Your task to perform on an android device: Search for "macbook pro 15 inch" on amazon.com, select the first entry, add it to the cart, then select checkout. Image 0: 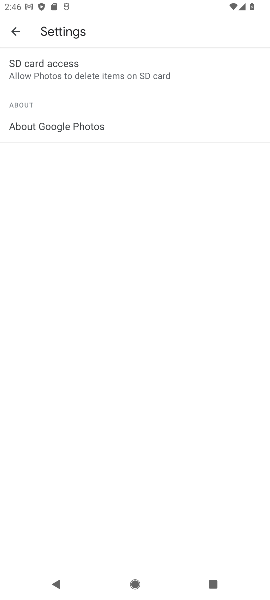
Step 0: press home button
Your task to perform on an android device: Search for "macbook pro 15 inch" on amazon.com, select the first entry, add it to the cart, then select checkout. Image 1: 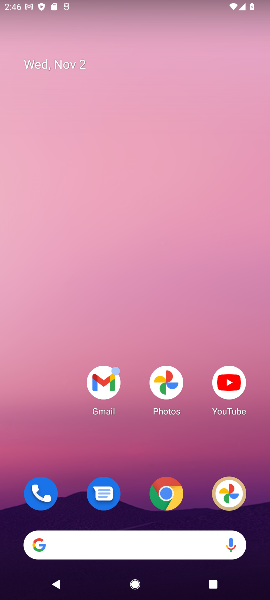
Step 1: click (165, 496)
Your task to perform on an android device: Search for "macbook pro 15 inch" on amazon.com, select the first entry, add it to the cart, then select checkout. Image 2: 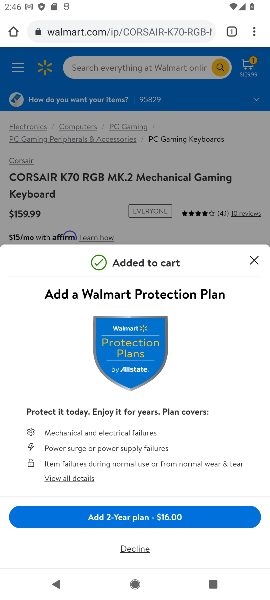
Step 2: click (84, 30)
Your task to perform on an android device: Search for "macbook pro 15 inch" on amazon.com, select the first entry, add it to the cart, then select checkout. Image 3: 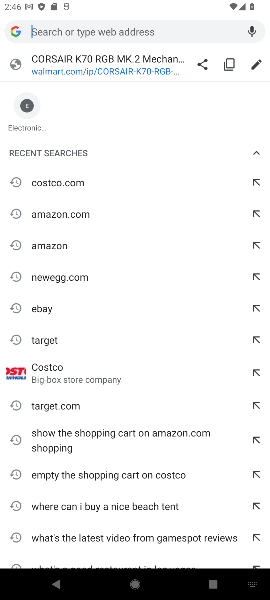
Step 3: type "amazon.com"
Your task to perform on an android device: Search for "macbook pro 15 inch" on amazon.com, select the first entry, add it to the cart, then select checkout. Image 4: 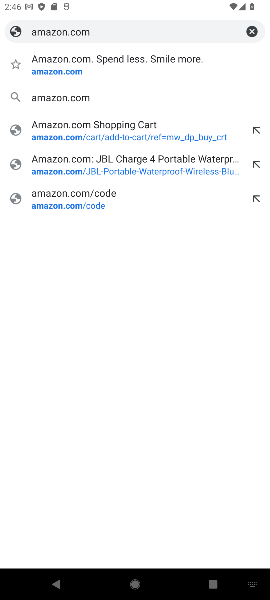
Step 4: click (49, 93)
Your task to perform on an android device: Search for "macbook pro 15 inch" on amazon.com, select the first entry, add it to the cart, then select checkout. Image 5: 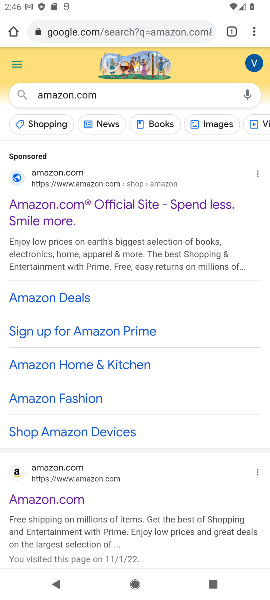
Step 5: click (43, 464)
Your task to perform on an android device: Search for "macbook pro 15 inch" on amazon.com, select the first entry, add it to the cart, then select checkout. Image 6: 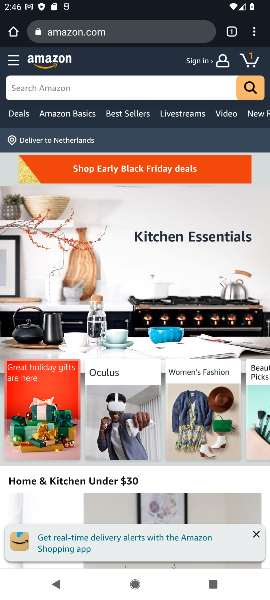
Step 6: click (69, 88)
Your task to perform on an android device: Search for "macbook pro 15 inch" on amazon.com, select the first entry, add it to the cart, then select checkout. Image 7: 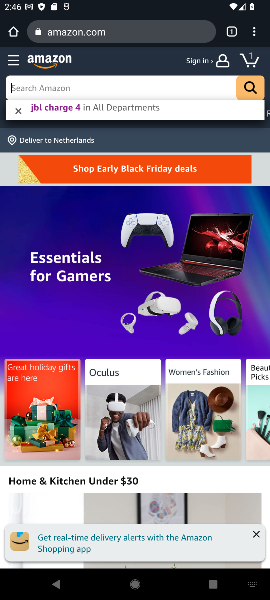
Step 7: type "macbook pro 15 inch"
Your task to perform on an android device: Search for "macbook pro 15 inch" on amazon.com, select the first entry, add it to the cart, then select checkout. Image 8: 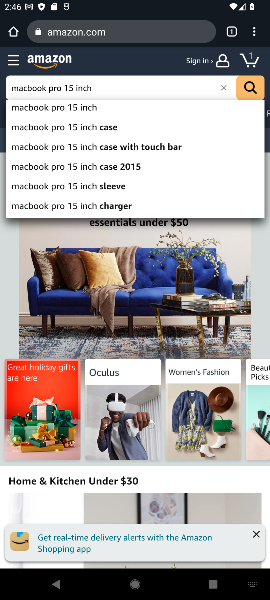
Step 8: click (105, 101)
Your task to perform on an android device: Search for "macbook pro 15 inch" on amazon.com, select the first entry, add it to the cart, then select checkout. Image 9: 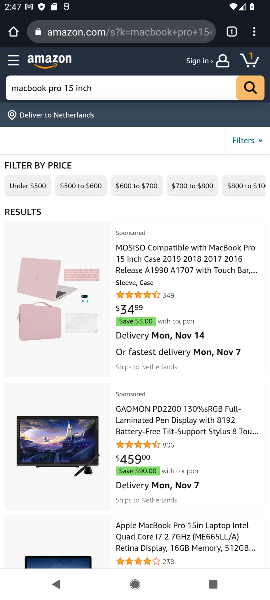
Step 9: click (51, 286)
Your task to perform on an android device: Search for "macbook pro 15 inch" on amazon.com, select the first entry, add it to the cart, then select checkout. Image 10: 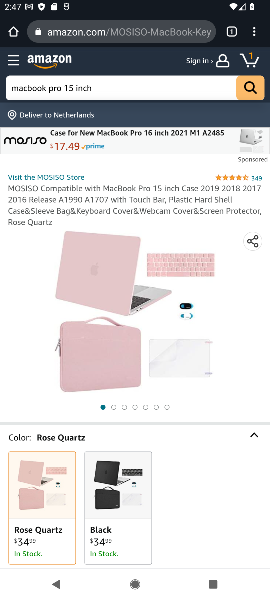
Step 10: drag from (174, 382) to (173, 162)
Your task to perform on an android device: Search for "macbook pro 15 inch" on amazon.com, select the first entry, add it to the cart, then select checkout. Image 11: 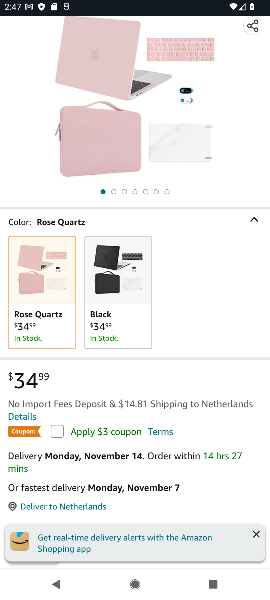
Step 11: drag from (191, 513) to (164, 205)
Your task to perform on an android device: Search for "macbook pro 15 inch" on amazon.com, select the first entry, add it to the cart, then select checkout. Image 12: 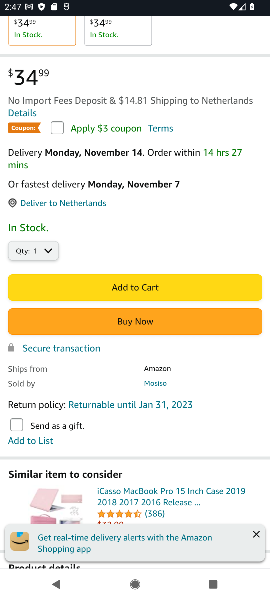
Step 12: click (167, 283)
Your task to perform on an android device: Search for "macbook pro 15 inch" on amazon.com, select the first entry, add it to the cart, then select checkout. Image 13: 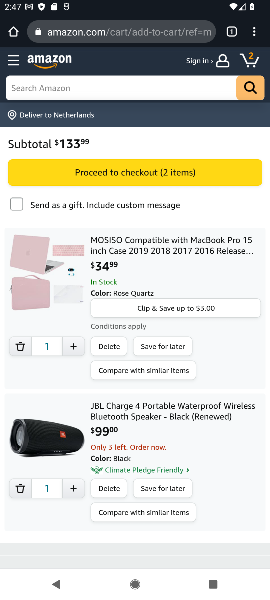
Step 13: click (147, 173)
Your task to perform on an android device: Search for "macbook pro 15 inch" on amazon.com, select the first entry, add it to the cart, then select checkout. Image 14: 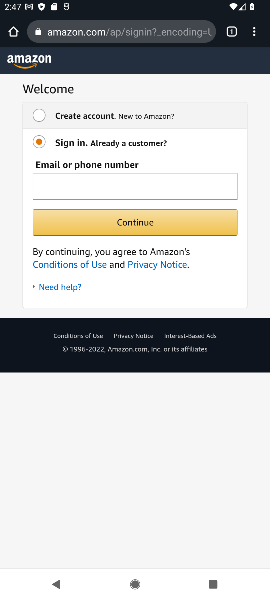
Step 14: task complete